Your task to perform on an android device: Find coffee shops on Maps Image 0: 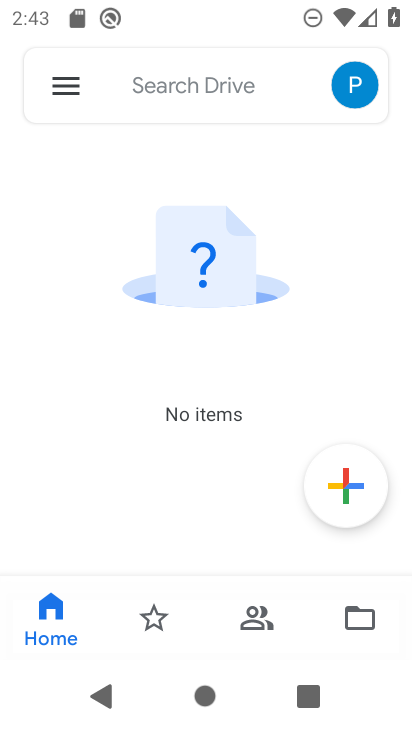
Step 0: press back button
Your task to perform on an android device: Find coffee shops on Maps Image 1: 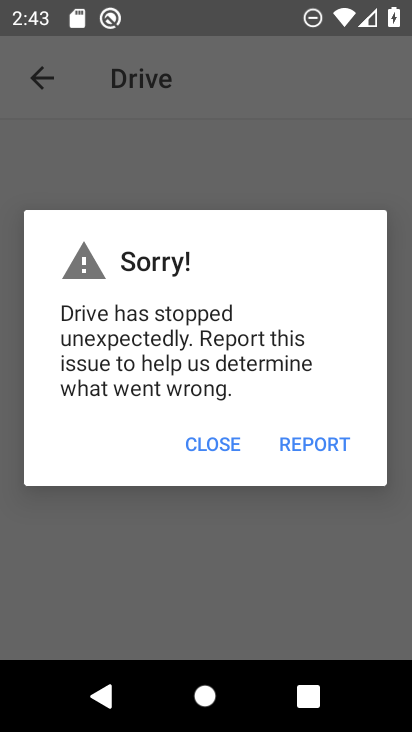
Step 1: press home button
Your task to perform on an android device: Find coffee shops on Maps Image 2: 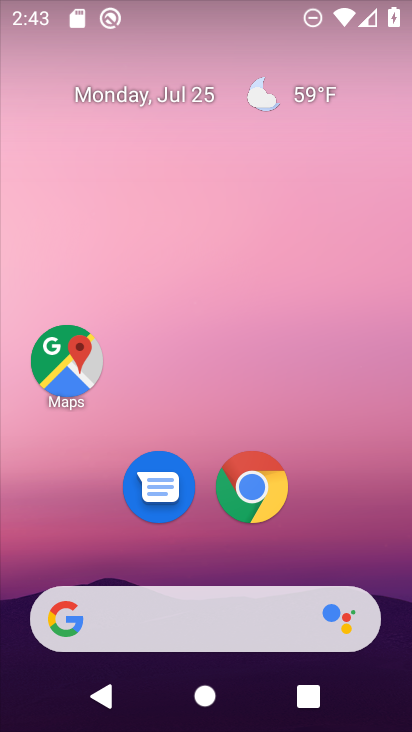
Step 2: click (68, 381)
Your task to perform on an android device: Find coffee shops on Maps Image 3: 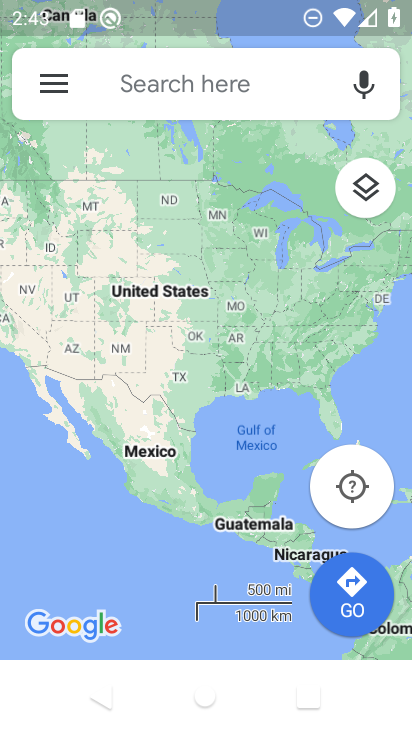
Step 3: click (137, 94)
Your task to perform on an android device: Find coffee shops on Maps Image 4: 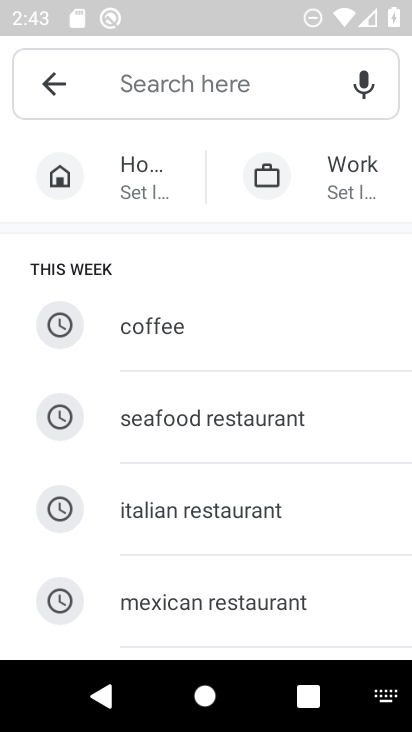
Step 4: click (208, 327)
Your task to perform on an android device: Find coffee shops on Maps Image 5: 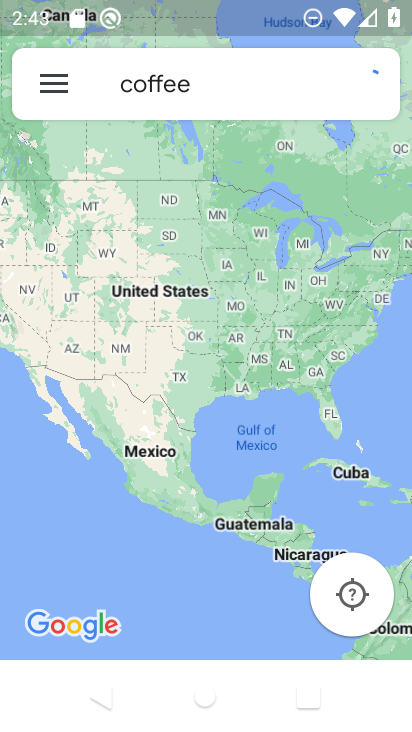
Step 5: click (307, 17)
Your task to perform on an android device: Find coffee shops on Maps Image 6: 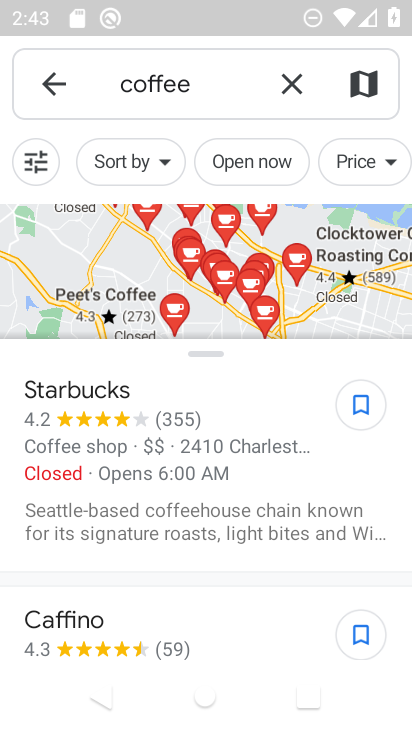
Step 6: task complete